Your task to perform on an android device: open app "Google Chrome" (install if not already installed) Image 0: 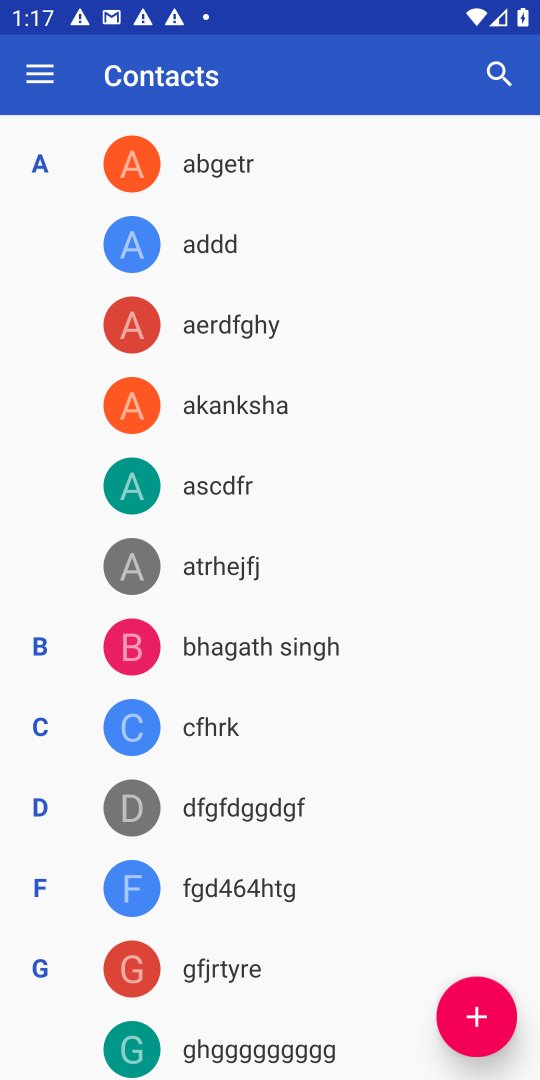
Step 0: press home button
Your task to perform on an android device: open app "Google Chrome" (install if not already installed) Image 1: 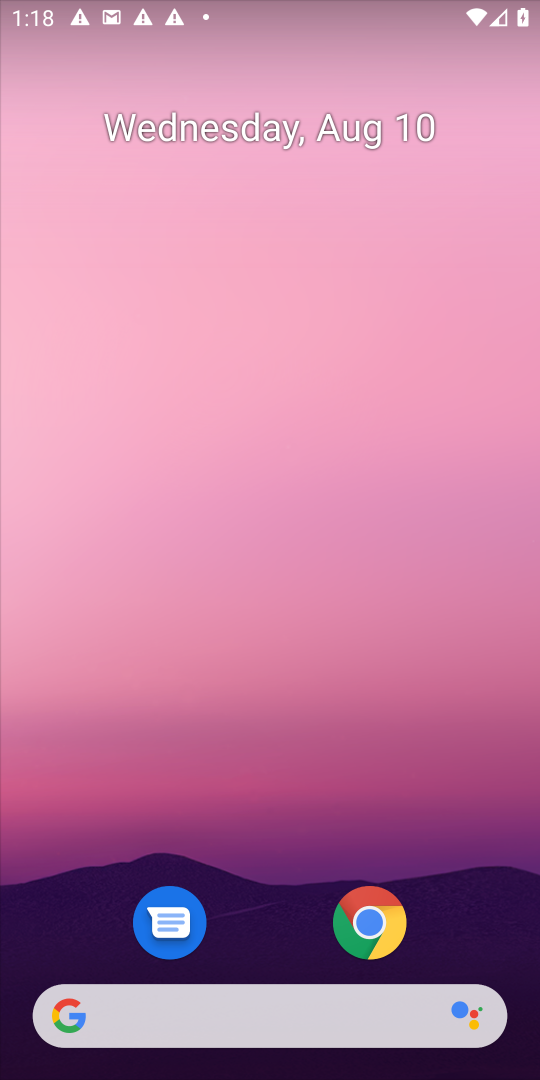
Step 1: drag from (259, 860) to (256, 228)
Your task to perform on an android device: open app "Google Chrome" (install if not already installed) Image 2: 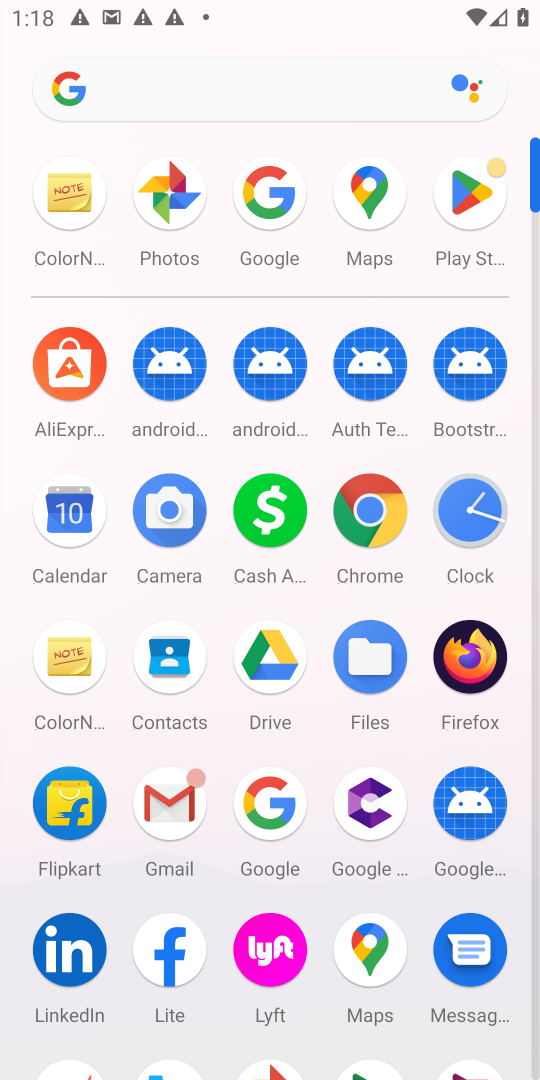
Step 2: click (462, 203)
Your task to perform on an android device: open app "Google Chrome" (install if not already installed) Image 3: 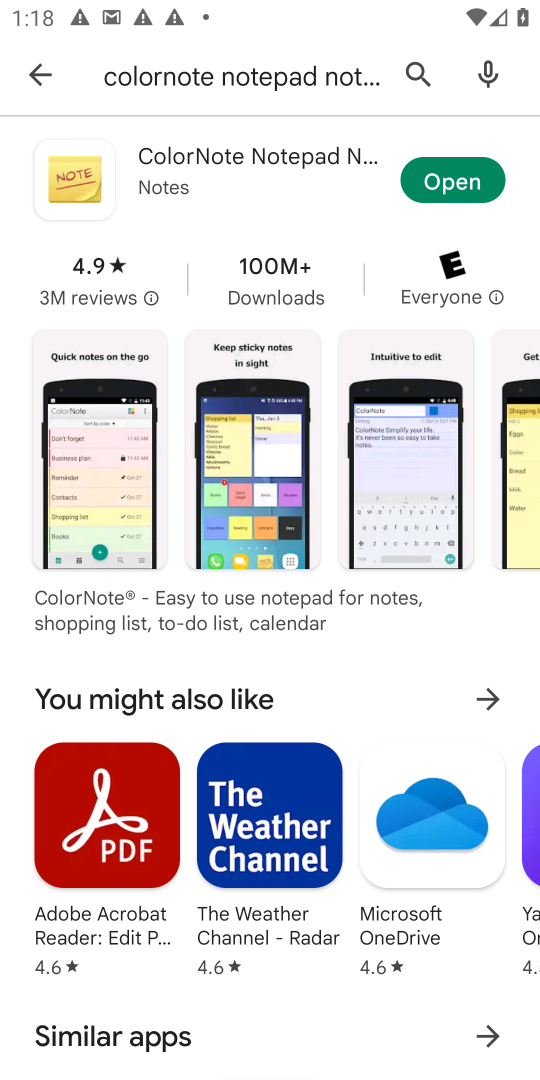
Step 3: click (40, 78)
Your task to perform on an android device: open app "Google Chrome" (install if not already installed) Image 4: 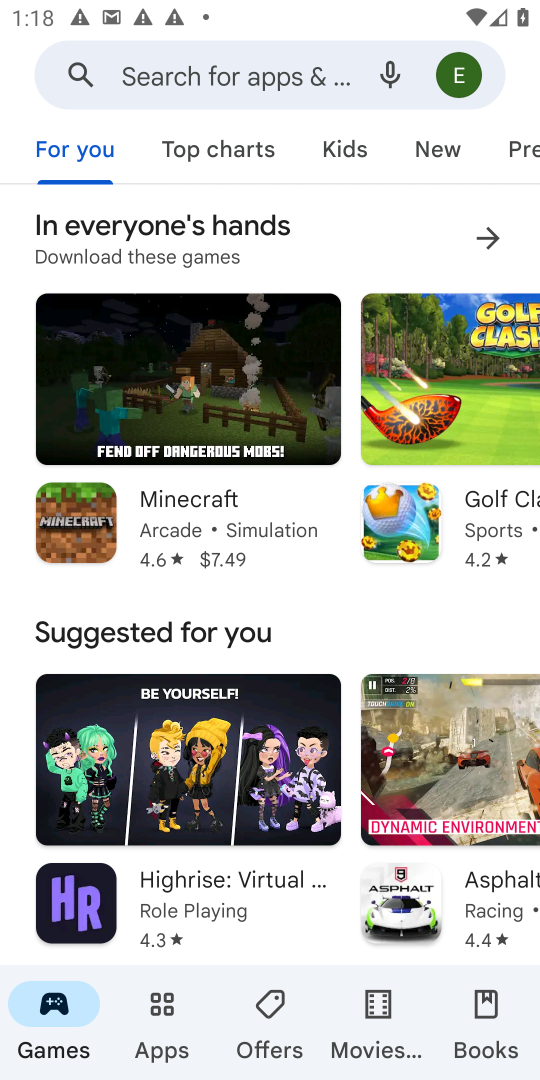
Step 4: click (188, 74)
Your task to perform on an android device: open app "Google Chrome" (install if not already installed) Image 5: 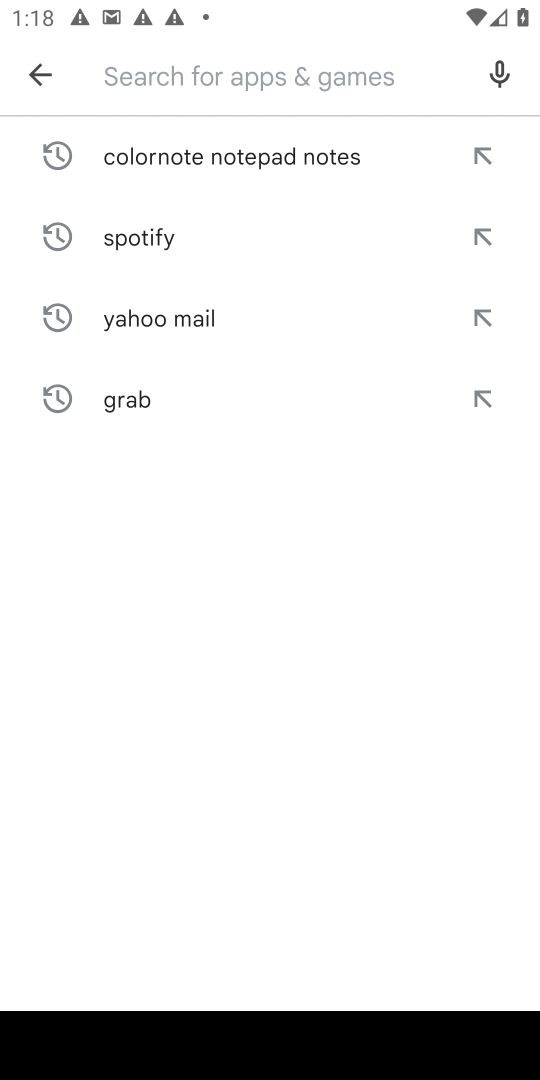
Step 5: type "Google Chrome"
Your task to perform on an android device: open app "Google Chrome" (install if not already installed) Image 6: 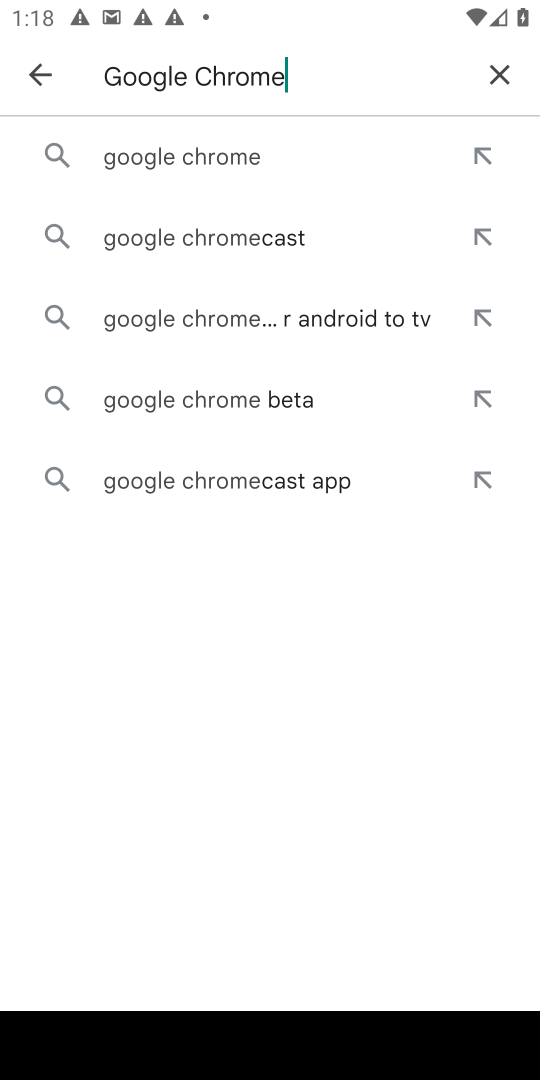
Step 6: click (163, 161)
Your task to perform on an android device: open app "Google Chrome" (install if not already installed) Image 7: 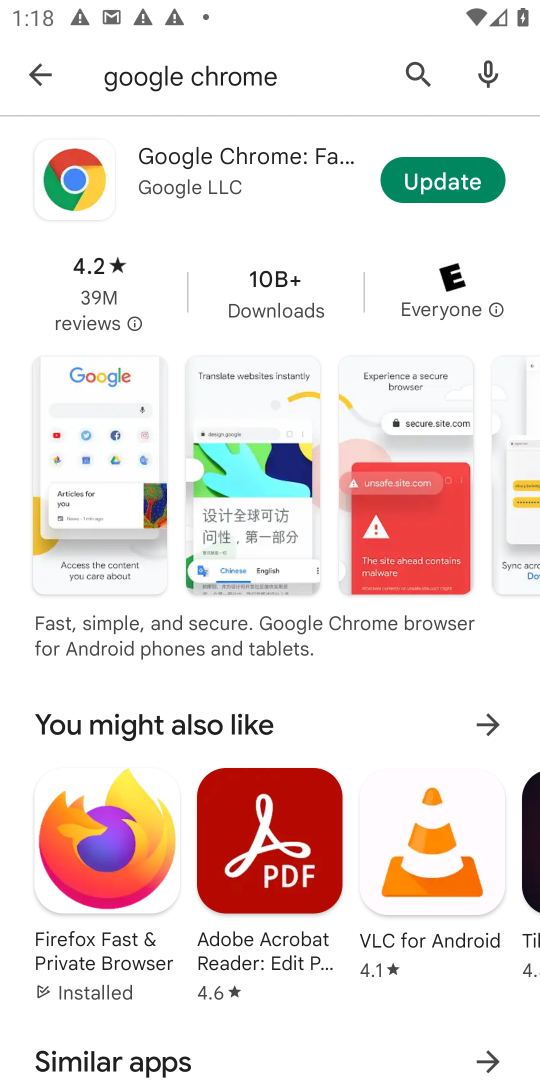
Step 7: click (471, 189)
Your task to perform on an android device: open app "Google Chrome" (install if not already installed) Image 8: 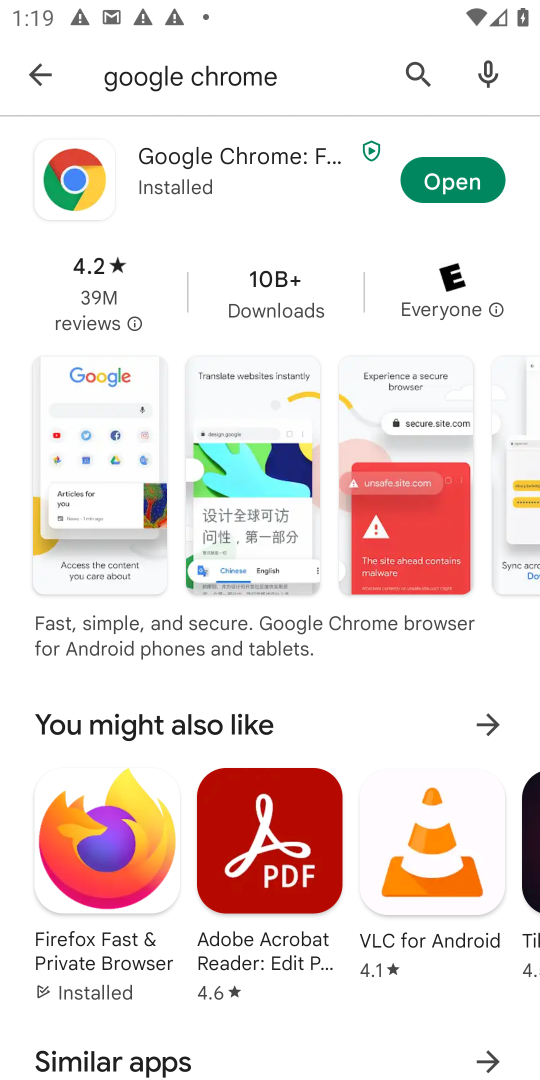
Step 8: click (441, 179)
Your task to perform on an android device: open app "Google Chrome" (install if not already installed) Image 9: 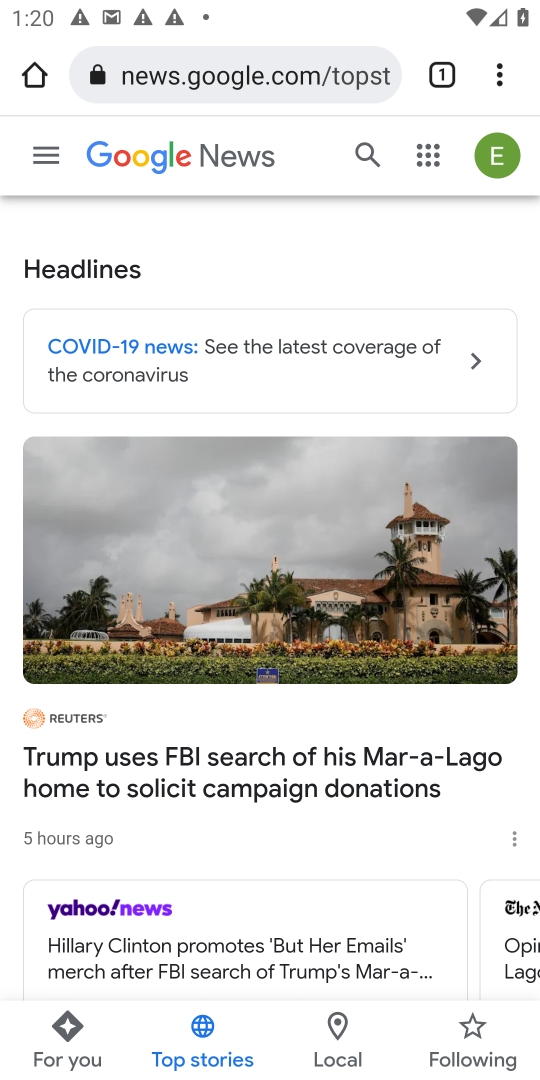
Step 9: task complete